Your task to perform on an android device: remove spam from my inbox in the gmail app Image 0: 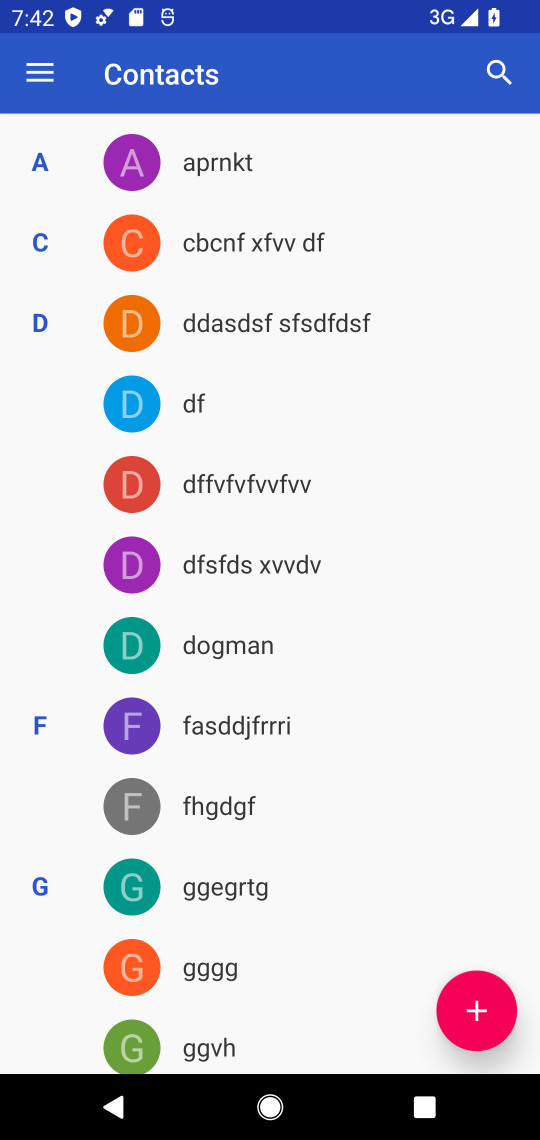
Step 0: press home button
Your task to perform on an android device: remove spam from my inbox in the gmail app Image 1: 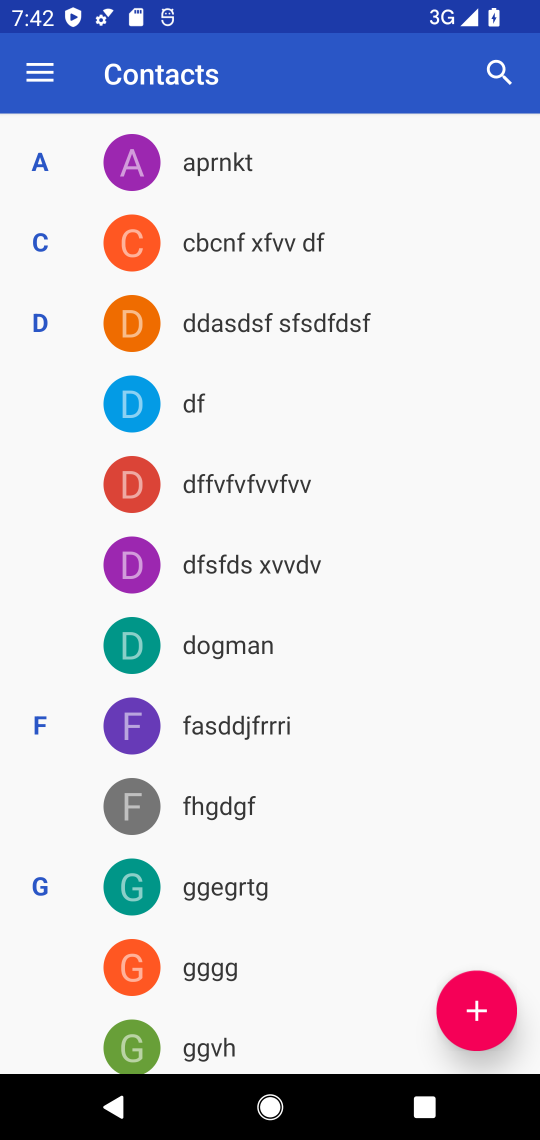
Step 1: press home button
Your task to perform on an android device: remove spam from my inbox in the gmail app Image 2: 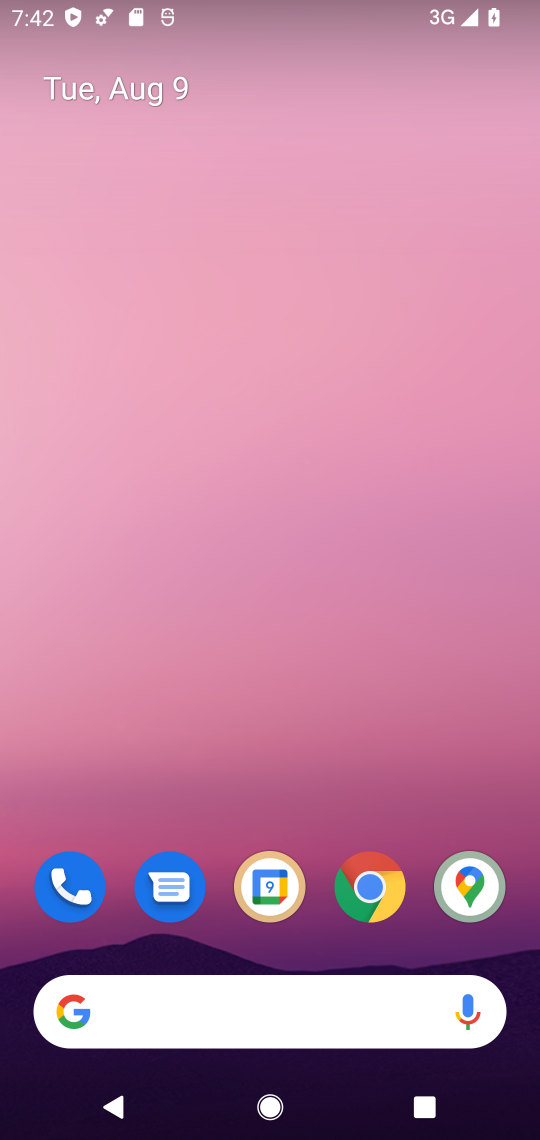
Step 2: drag from (316, 774) to (415, 0)
Your task to perform on an android device: remove spam from my inbox in the gmail app Image 3: 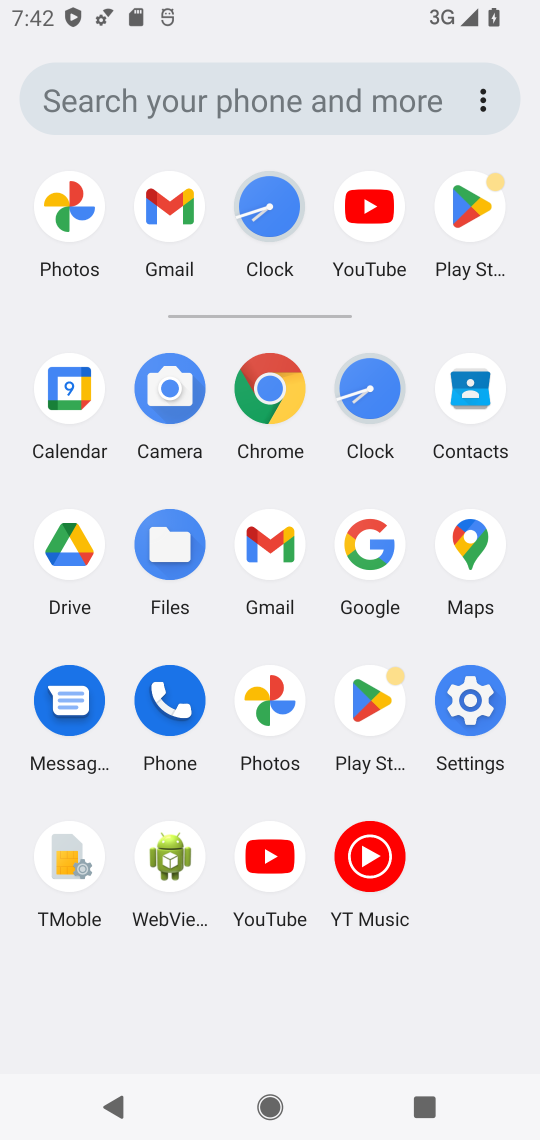
Step 3: click (187, 212)
Your task to perform on an android device: remove spam from my inbox in the gmail app Image 4: 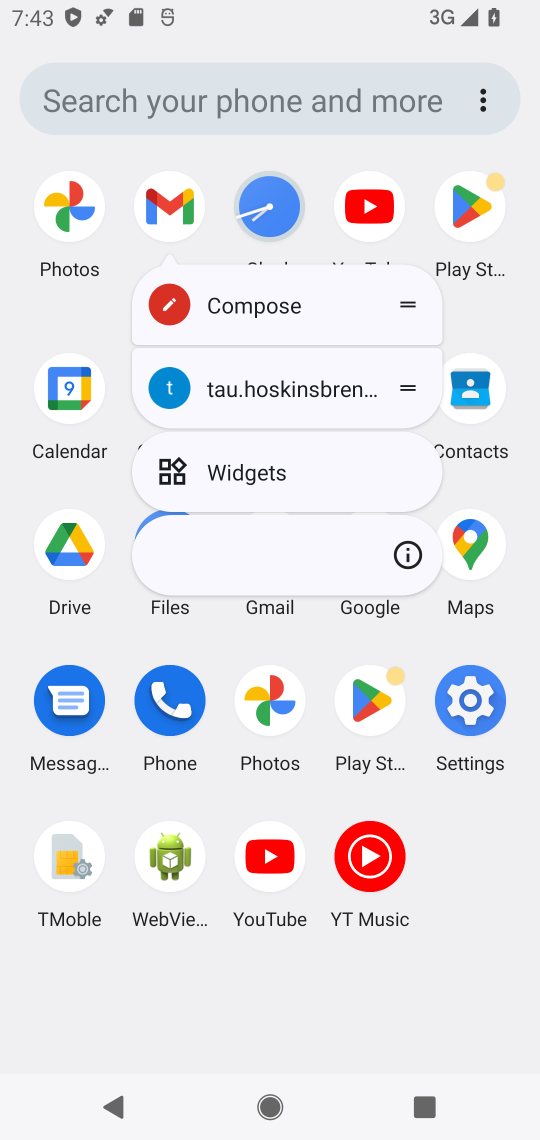
Step 4: click (180, 210)
Your task to perform on an android device: remove spam from my inbox in the gmail app Image 5: 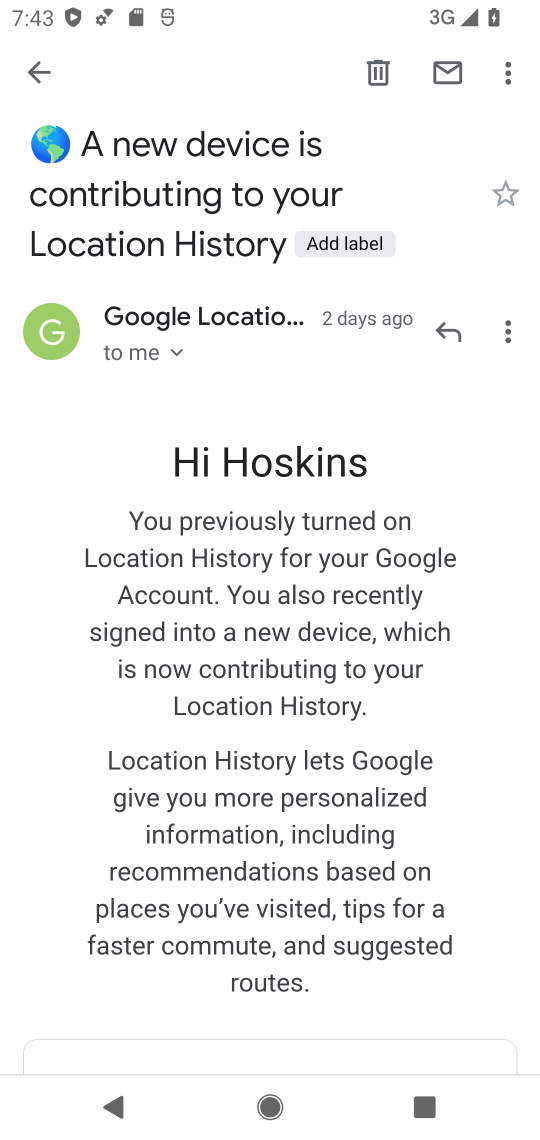
Step 5: click (31, 74)
Your task to perform on an android device: remove spam from my inbox in the gmail app Image 6: 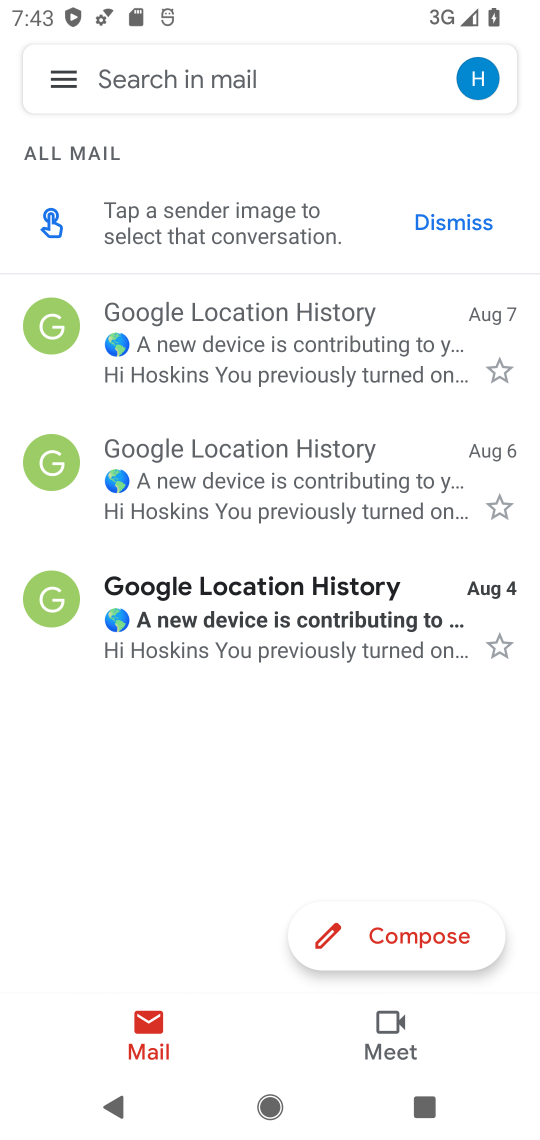
Step 6: click (60, 78)
Your task to perform on an android device: remove spam from my inbox in the gmail app Image 7: 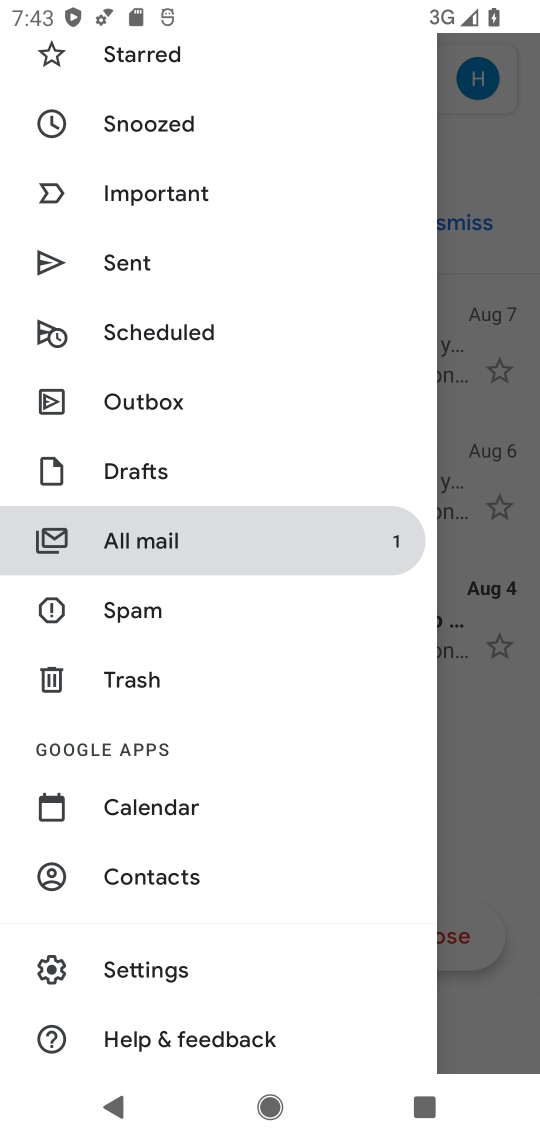
Step 7: click (162, 607)
Your task to perform on an android device: remove spam from my inbox in the gmail app Image 8: 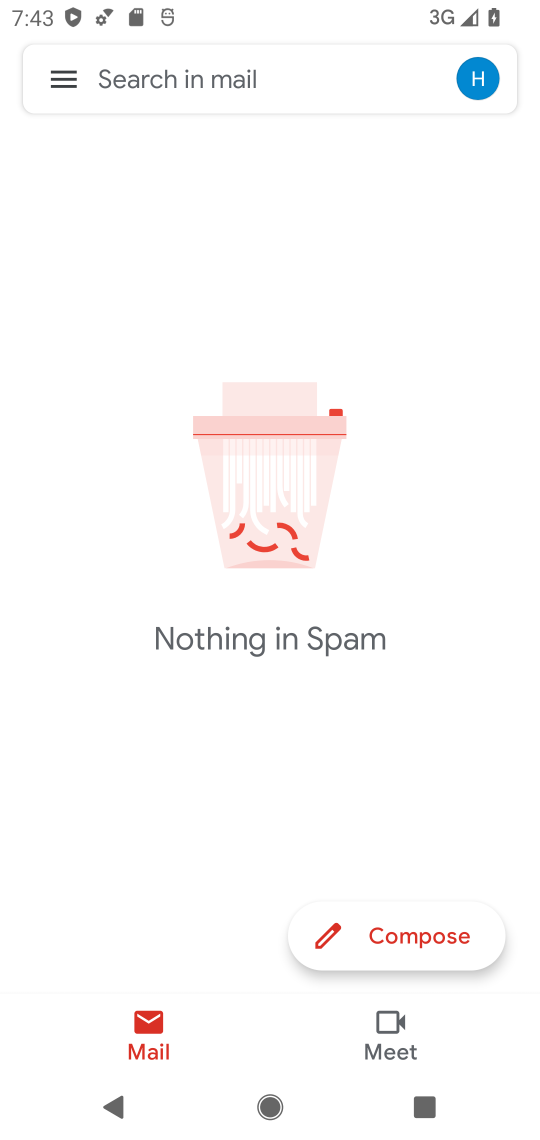
Step 8: task complete